Your task to perform on an android device: make emails show in primary in the gmail app Image 0: 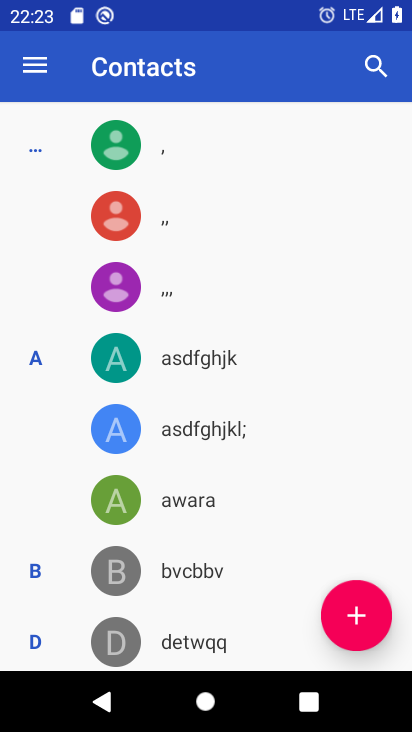
Step 0: press home button
Your task to perform on an android device: make emails show in primary in the gmail app Image 1: 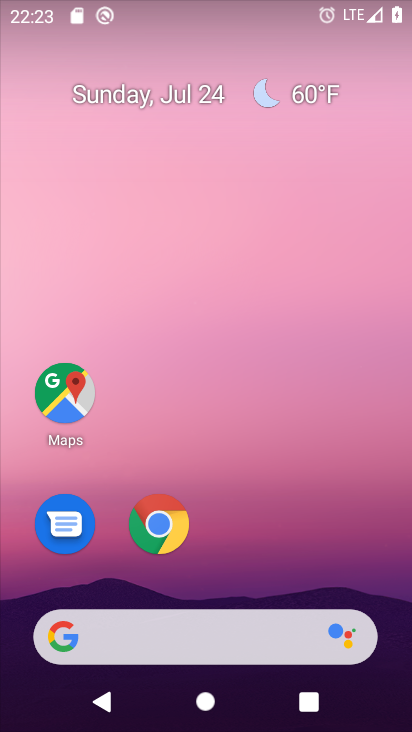
Step 1: drag from (302, 508) to (364, 34)
Your task to perform on an android device: make emails show in primary in the gmail app Image 2: 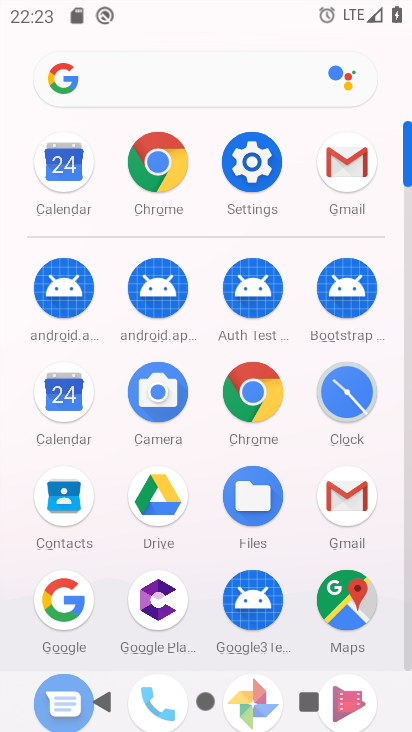
Step 2: click (340, 176)
Your task to perform on an android device: make emails show in primary in the gmail app Image 3: 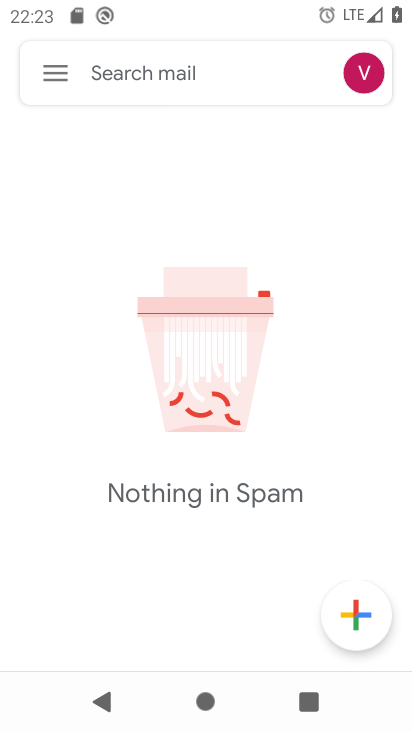
Step 3: click (46, 61)
Your task to perform on an android device: make emails show in primary in the gmail app Image 4: 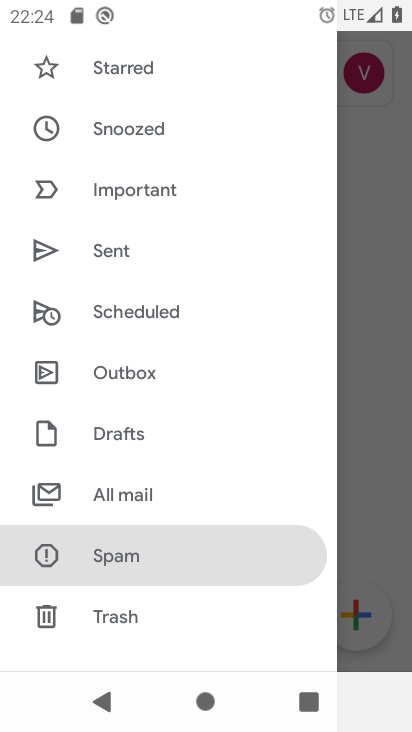
Step 4: drag from (266, 465) to (258, 117)
Your task to perform on an android device: make emails show in primary in the gmail app Image 5: 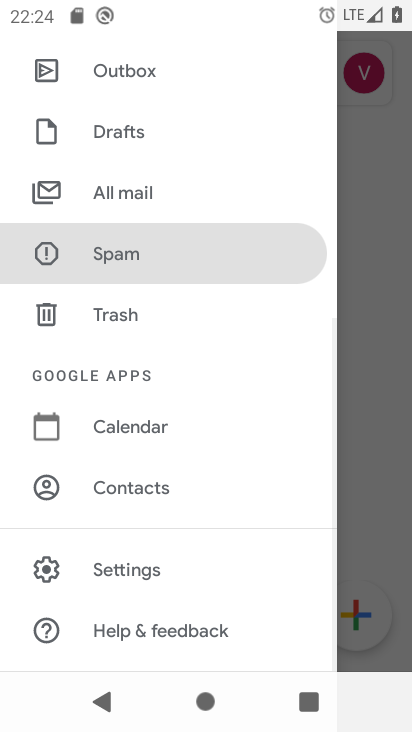
Step 5: click (133, 576)
Your task to perform on an android device: make emails show in primary in the gmail app Image 6: 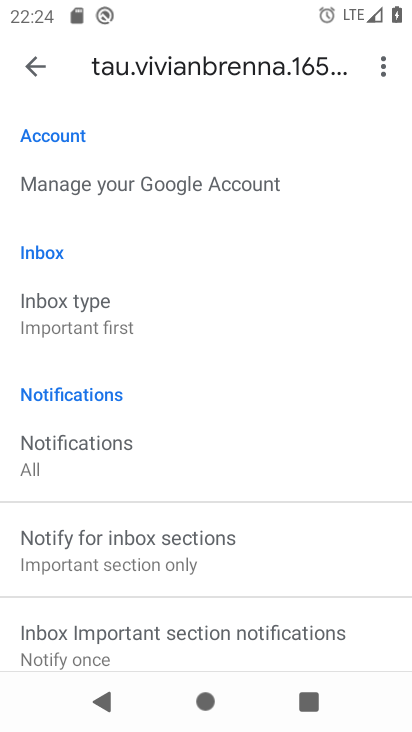
Step 6: click (100, 312)
Your task to perform on an android device: make emails show in primary in the gmail app Image 7: 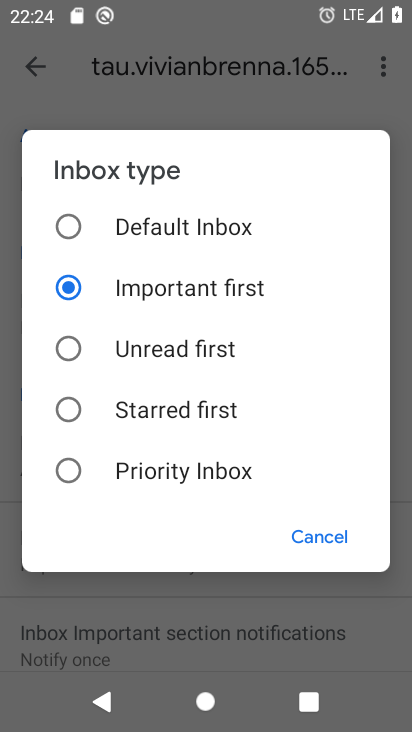
Step 7: click (66, 218)
Your task to perform on an android device: make emails show in primary in the gmail app Image 8: 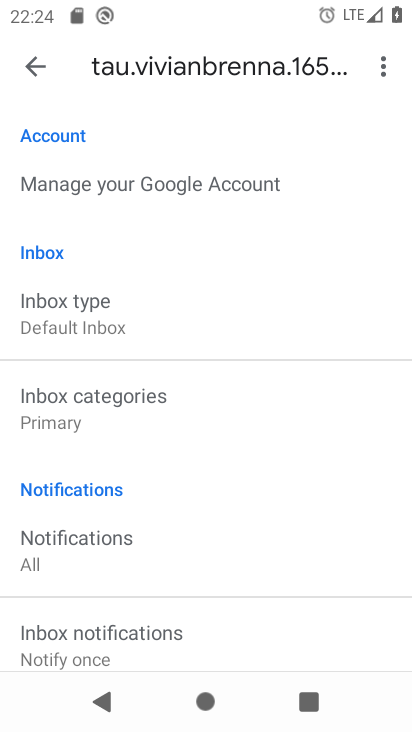
Step 8: task complete